Your task to perform on an android device: see sites visited before in the chrome app Image 0: 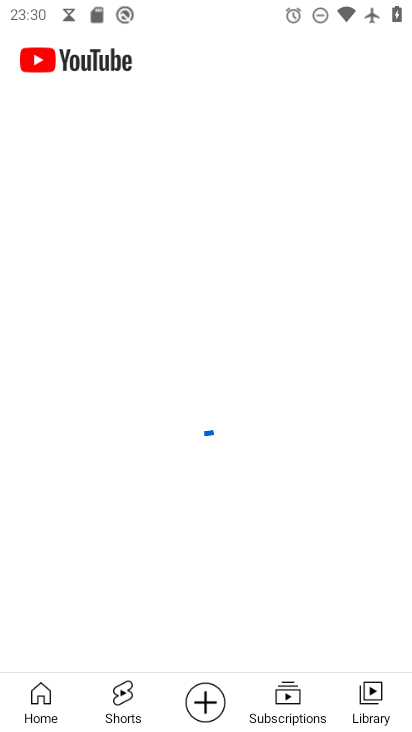
Step 0: press home button
Your task to perform on an android device: see sites visited before in the chrome app Image 1: 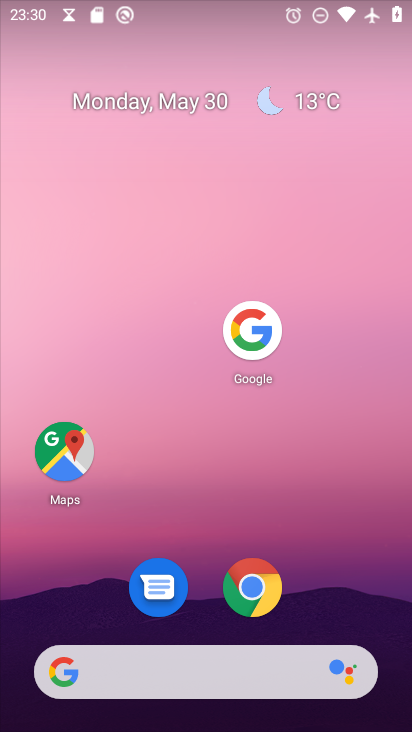
Step 1: click (242, 587)
Your task to perform on an android device: see sites visited before in the chrome app Image 2: 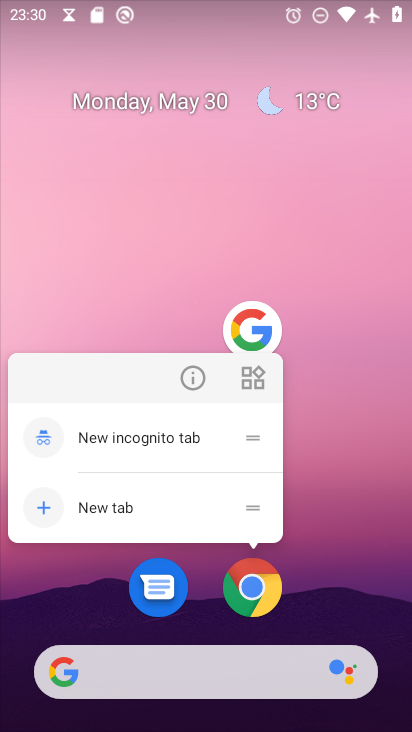
Step 2: click (248, 591)
Your task to perform on an android device: see sites visited before in the chrome app Image 3: 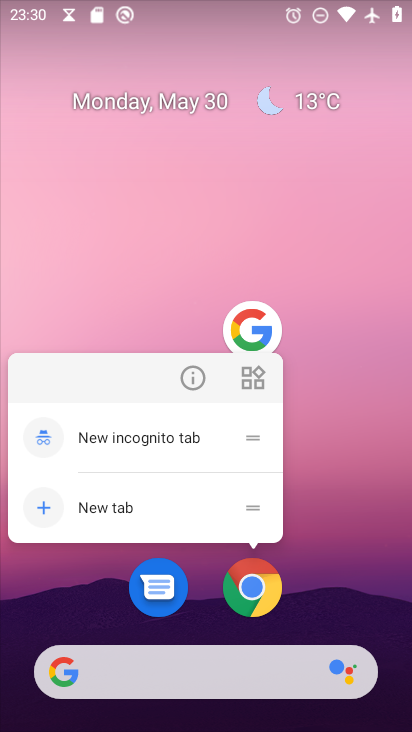
Step 3: click (250, 589)
Your task to perform on an android device: see sites visited before in the chrome app Image 4: 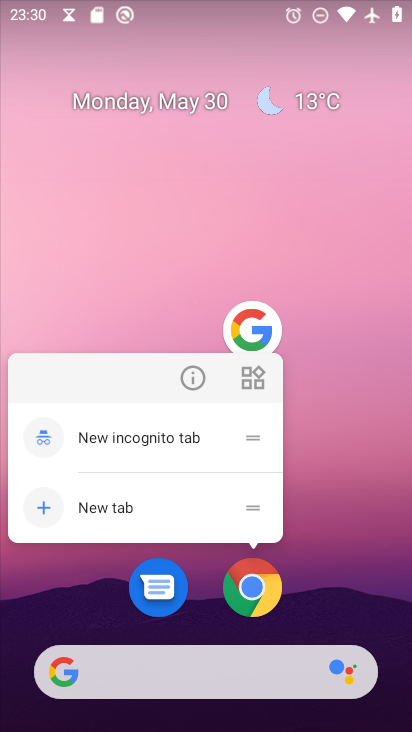
Step 4: click (250, 589)
Your task to perform on an android device: see sites visited before in the chrome app Image 5: 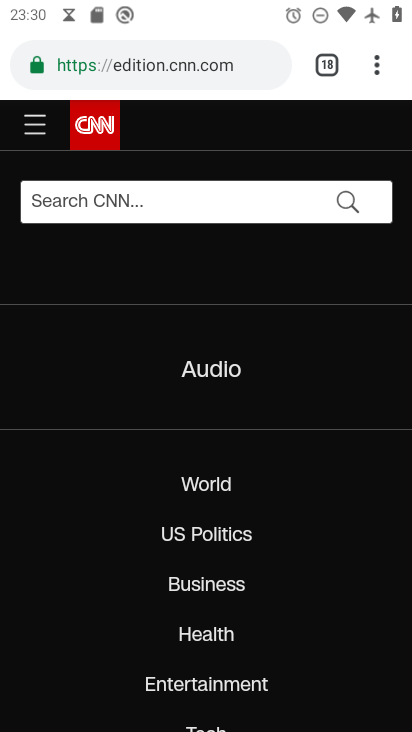
Step 5: task complete